Your task to perform on an android device: Open the phone app and click the voicemail tab. Image 0: 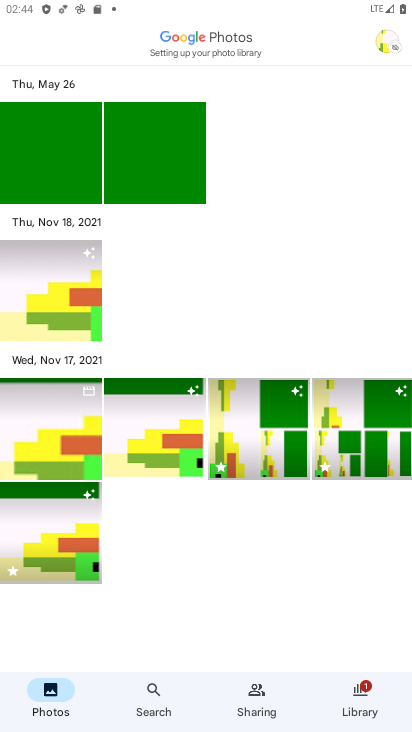
Step 0: press home button
Your task to perform on an android device: Open the phone app and click the voicemail tab. Image 1: 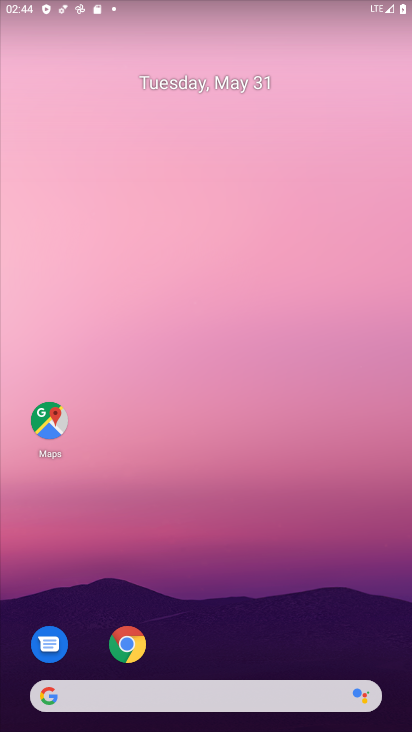
Step 1: drag from (271, 586) to (289, 69)
Your task to perform on an android device: Open the phone app and click the voicemail tab. Image 2: 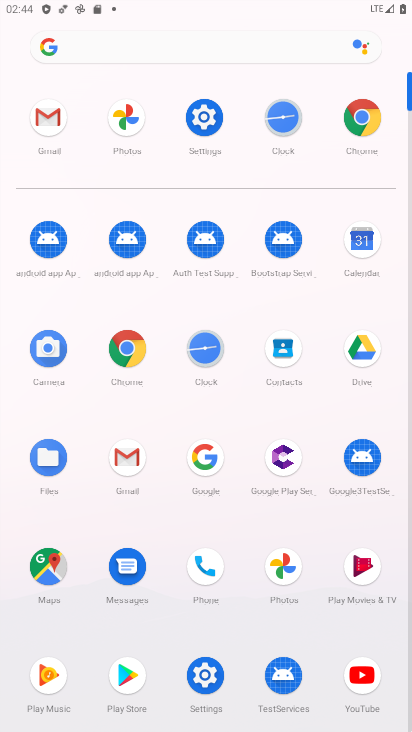
Step 2: click (200, 562)
Your task to perform on an android device: Open the phone app and click the voicemail tab. Image 3: 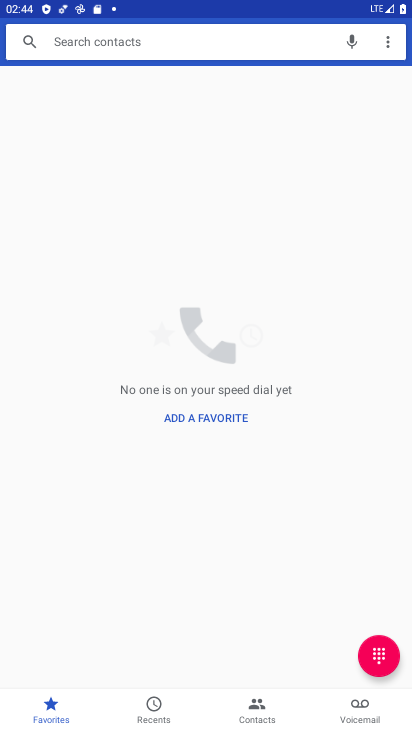
Step 3: click (355, 713)
Your task to perform on an android device: Open the phone app and click the voicemail tab. Image 4: 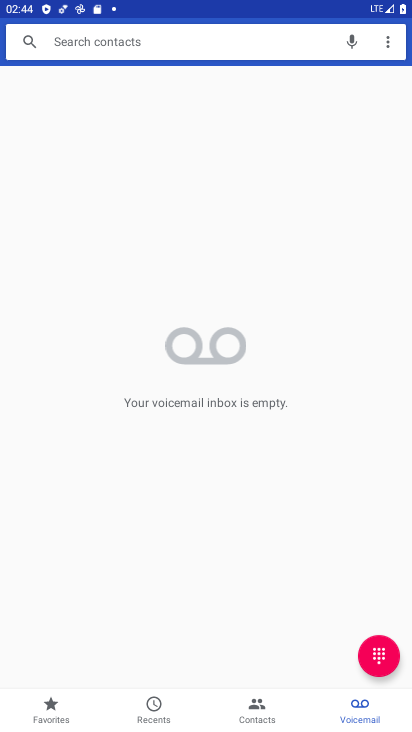
Step 4: task complete